Your task to perform on an android device: turn on translation in the chrome app Image 0: 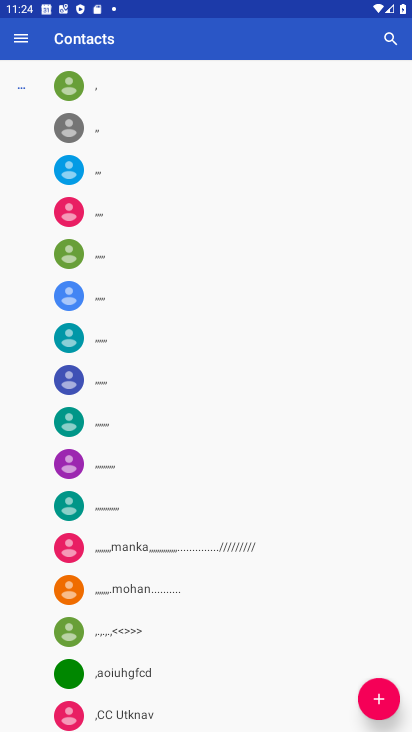
Step 0: press home button
Your task to perform on an android device: turn on translation in the chrome app Image 1: 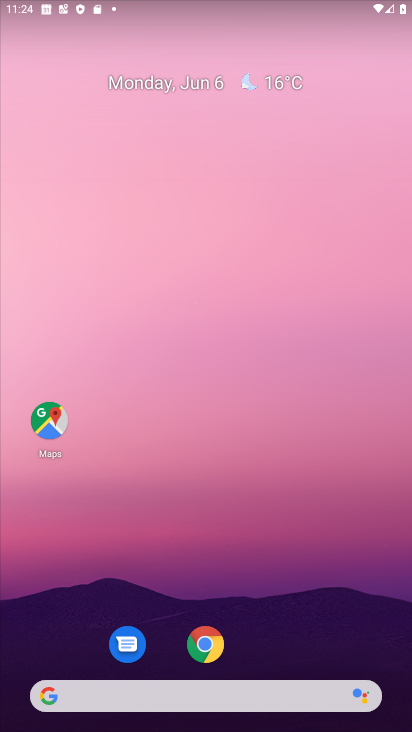
Step 1: click (195, 641)
Your task to perform on an android device: turn on translation in the chrome app Image 2: 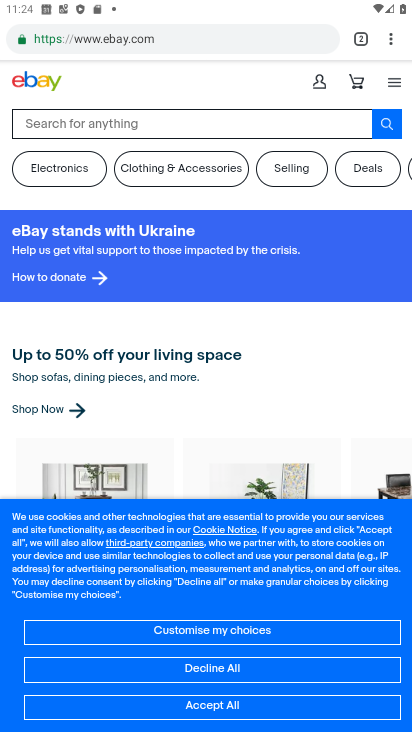
Step 2: click (396, 24)
Your task to perform on an android device: turn on translation in the chrome app Image 3: 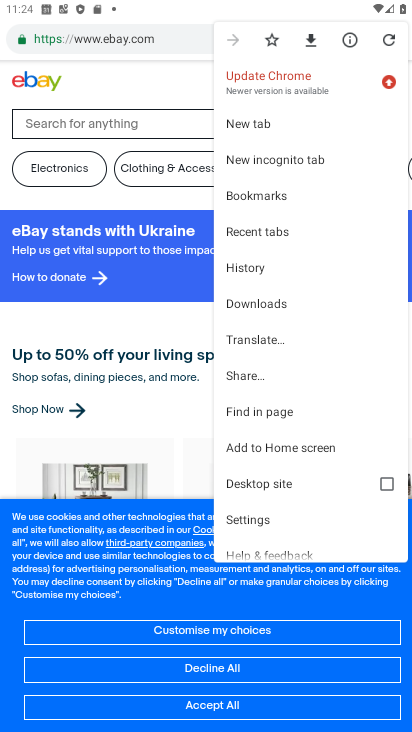
Step 3: click (288, 514)
Your task to perform on an android device: turn on translation in the chrome app Image 4: 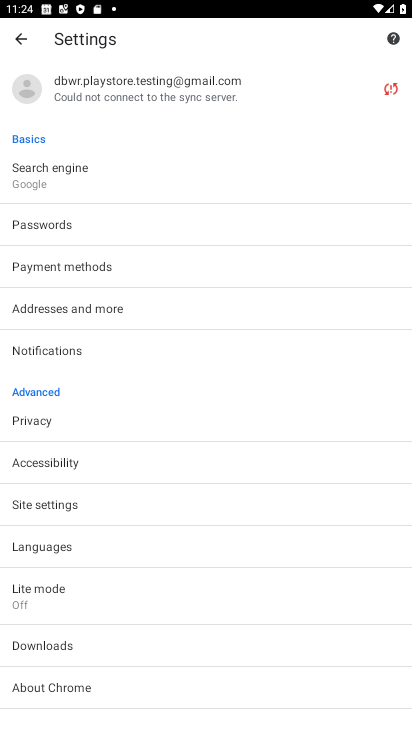
Step 4: click (148, 551)
Your task to perform on an android device: turn on translation in the chrome app Image 5: 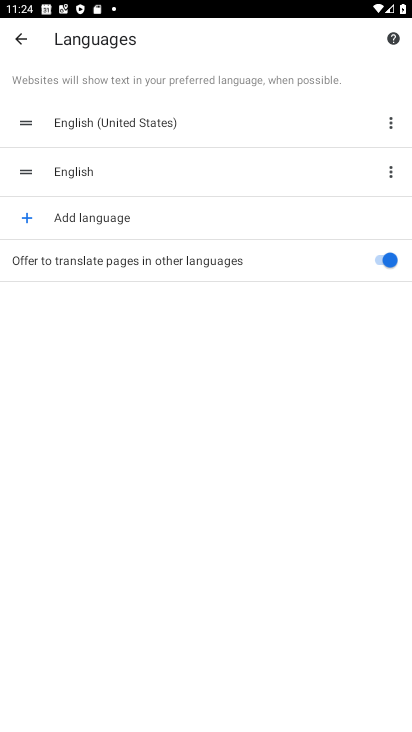
Step 5: task complete